Your task to perform on an android device: Check the news Image 0: 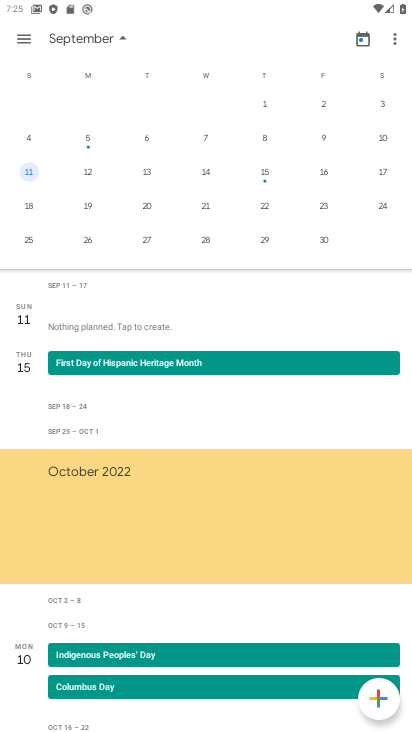
Step 0: press home button
Your task to perform on an android device: Check the news Image 1: 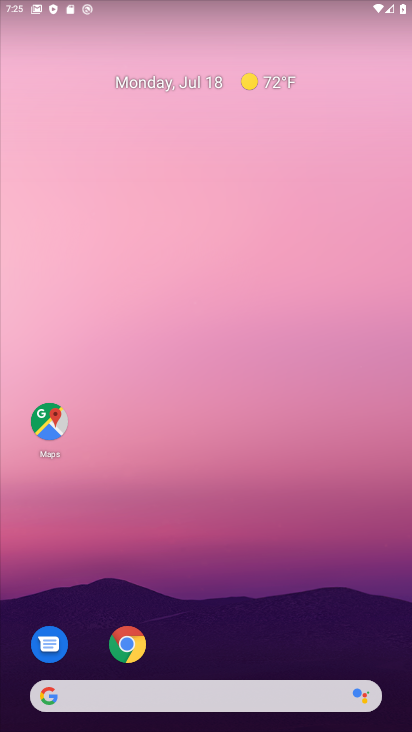
Step 1: drag from (394, 676) to (167, 23)
Your task to perform on an android device: Check the news Image 2: 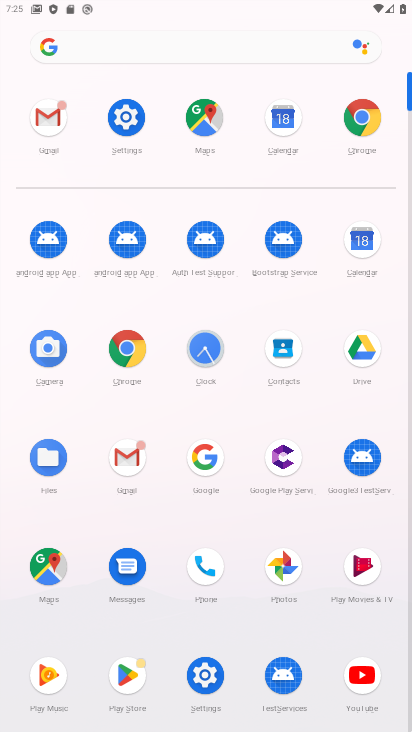
Step 2: click (190, 451)
Your task to perform on an android device: Check the news Image 3: 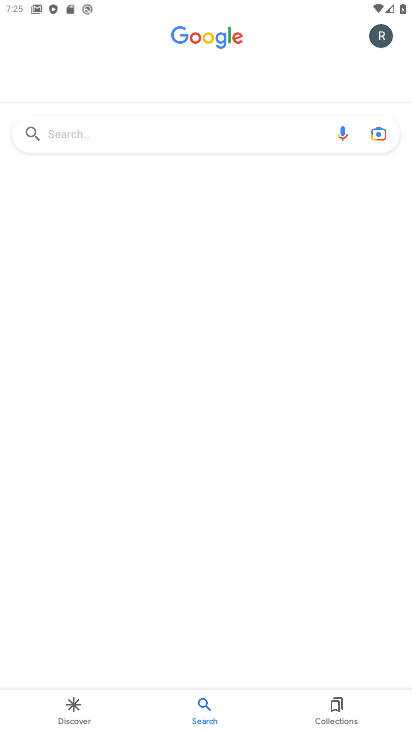
Step 3: click (109, 124)
Your task to perform on an android device: Check the news Image 4: 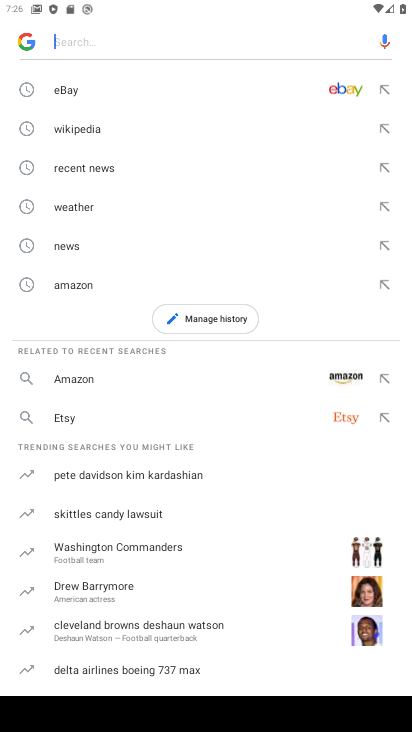
Step 4: click (71, 248)
Your task to perform on an android device: Check the news Image 5: 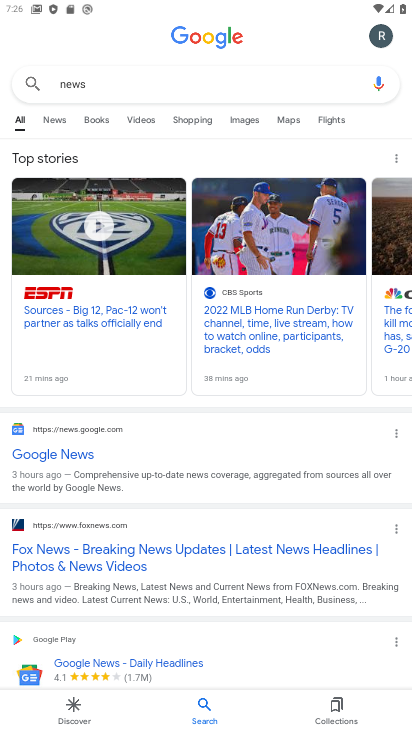
Step 5: task complete